Your task to perform on an android device: turn off translation in the chrome app Image 0: 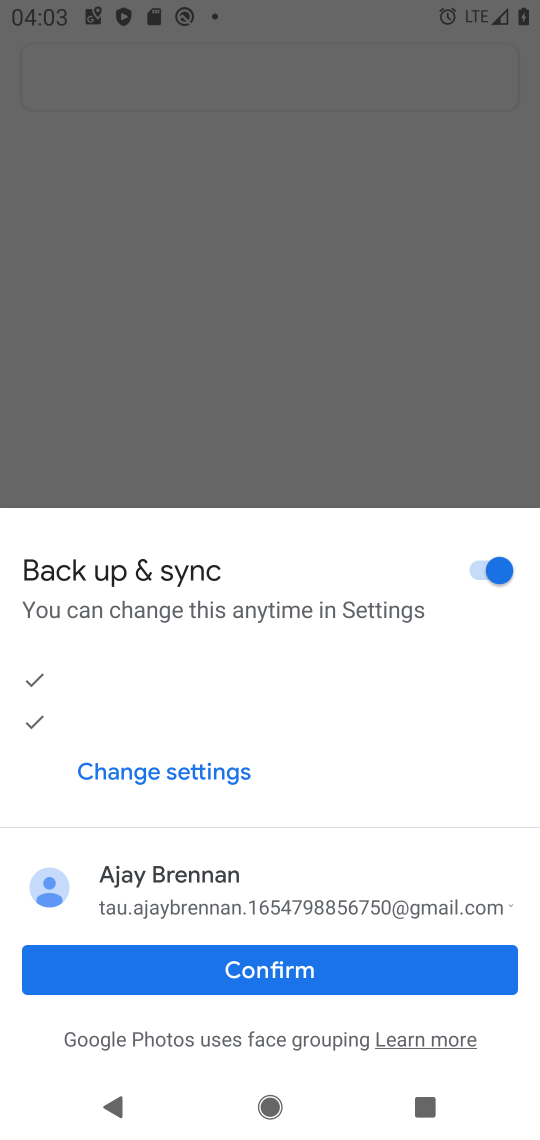
Step 0: press back button
Your task to perform on an android device: turn off translation in the chrome app Image 1: 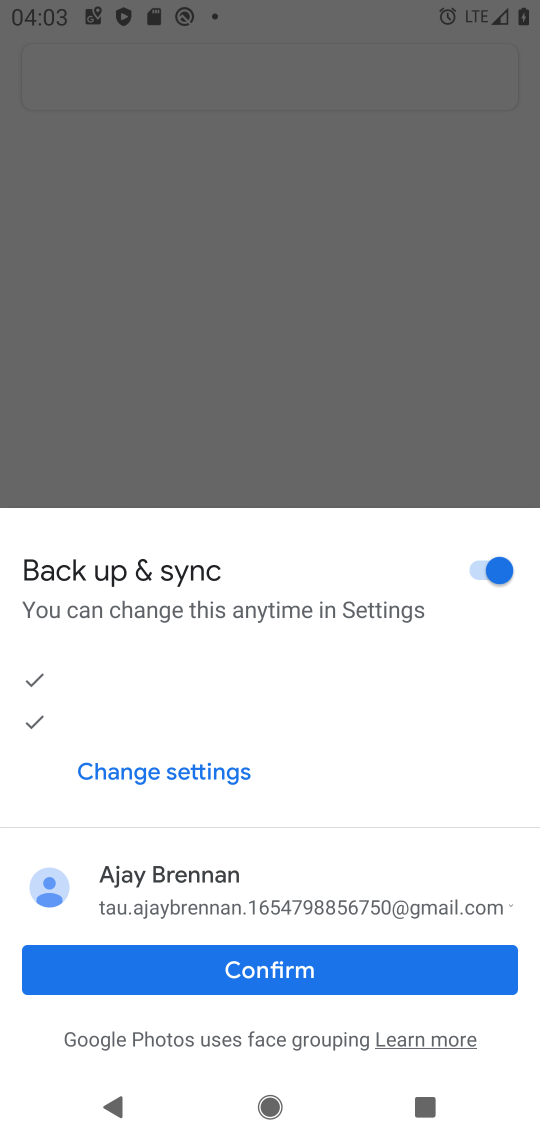
Step 1: click (359, 951)
Your task to perform on an android device: turn off translation in the chrome app Image 2: 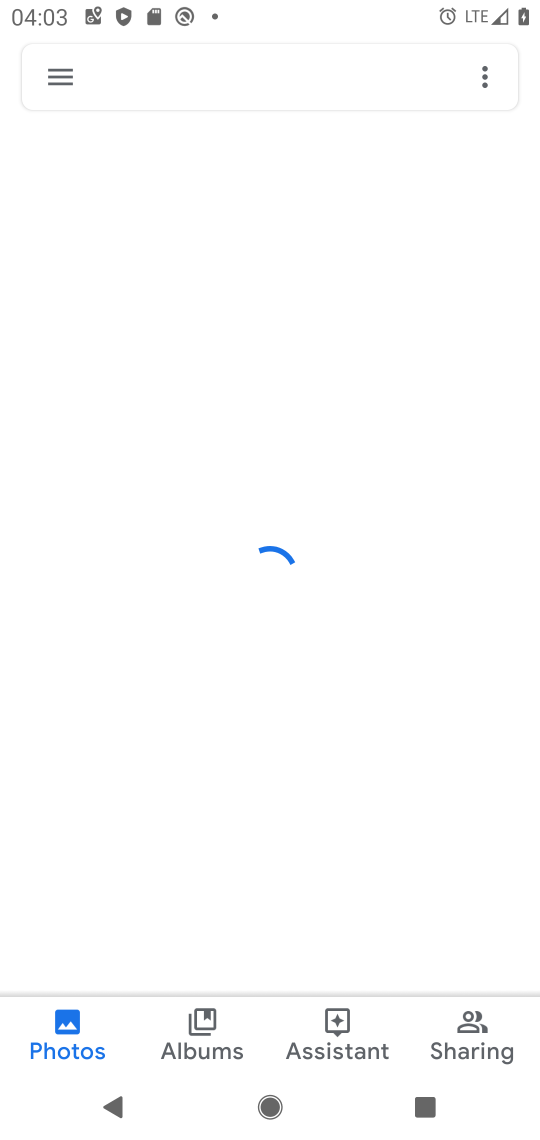
Step 2: press home button
Your task to perform on an android device: turn off translation in the chrome app Image 3: 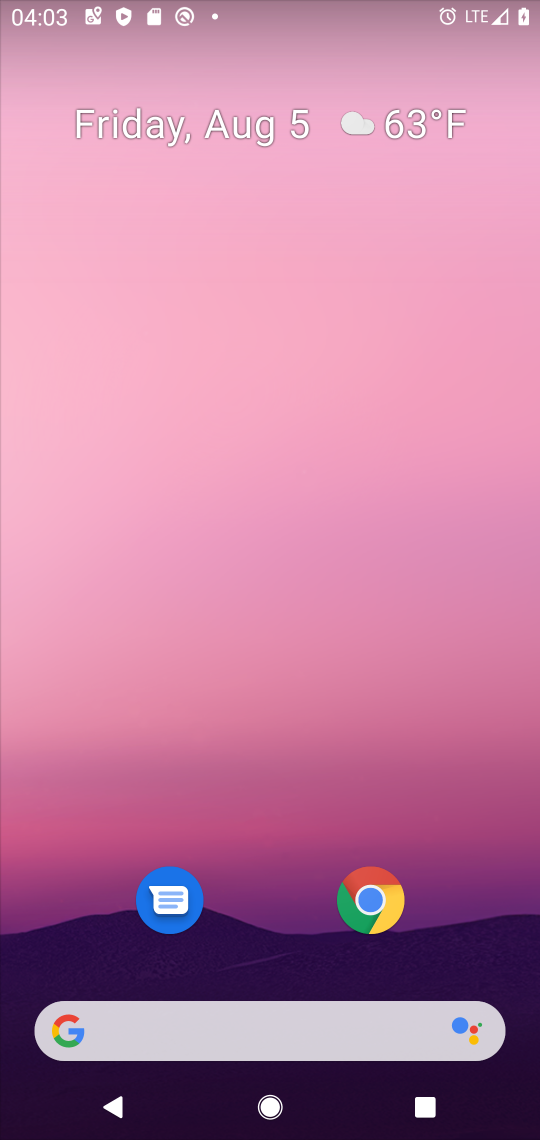
Step 3: press back button
Your task to perform on an android device: turn off translation in the chrome app Image 4: 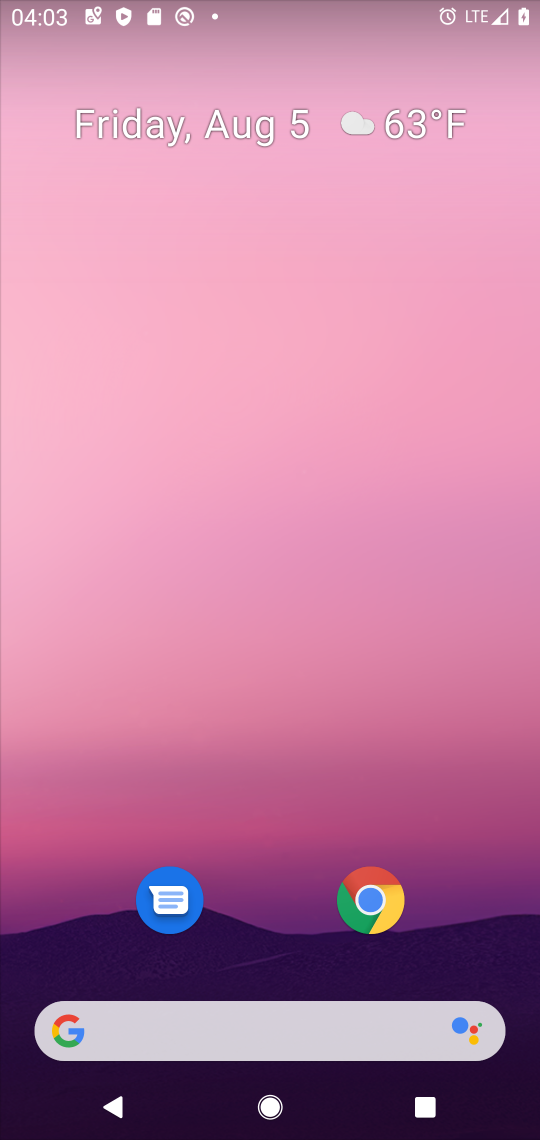
Step 4: click (381, 892)
Your task to perform on an android device: turn off translation in the chrome app Image 5: 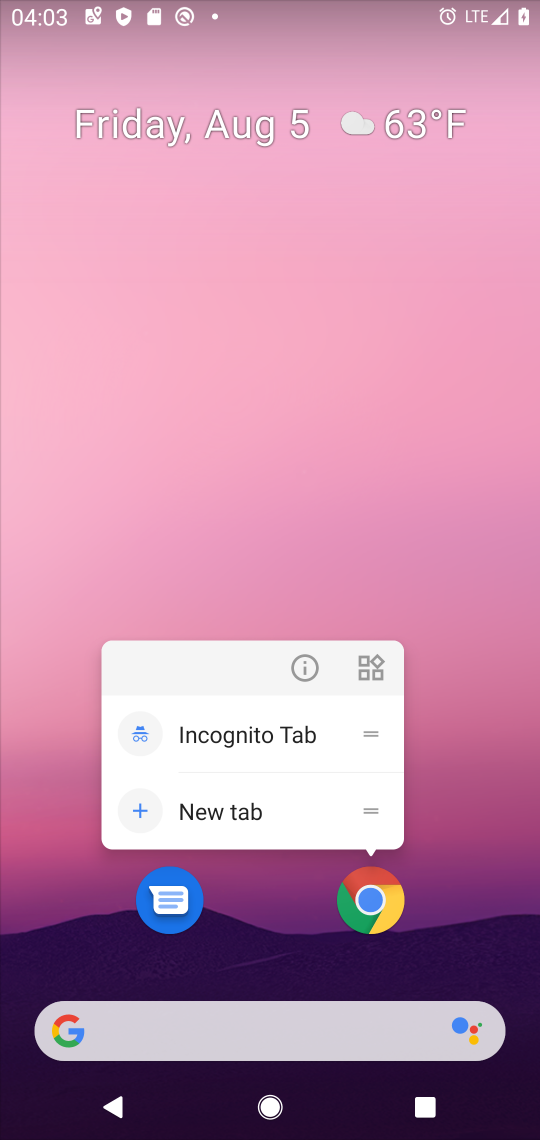
Step 5: click (389, 913)
Your task to perform on an android device: turn off translation in the chrome app Image 6: 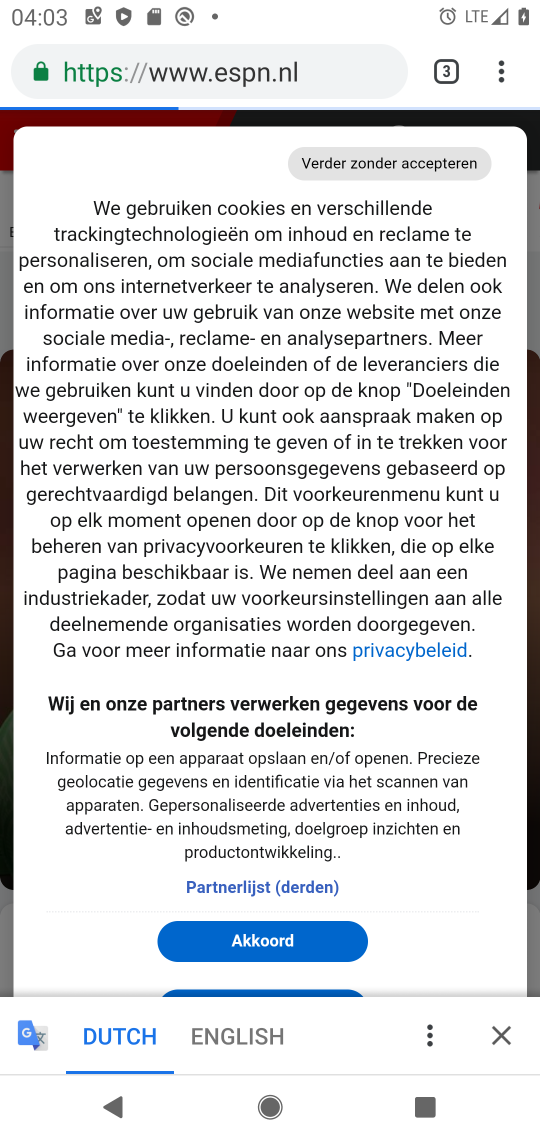
Step 6: drag from (499, 62) to (278, 796)
Your task to perform on an android device: turn off translation in the chrome app Image 7: 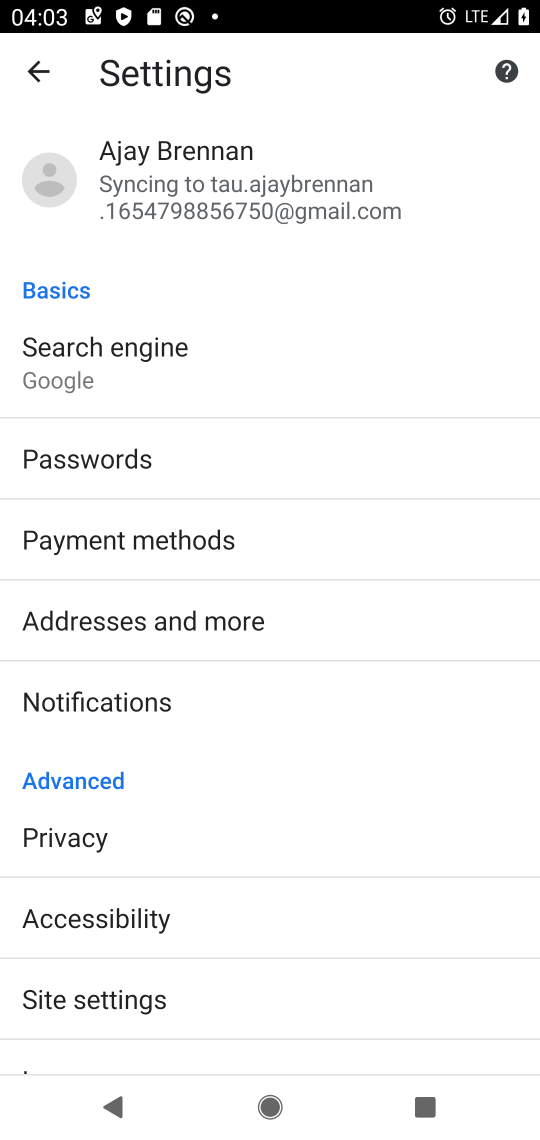
Step 7: drag from (118, 947) to (274, 277)
Your task to perform on an android device: turn off translation in the chrome app Image 8: 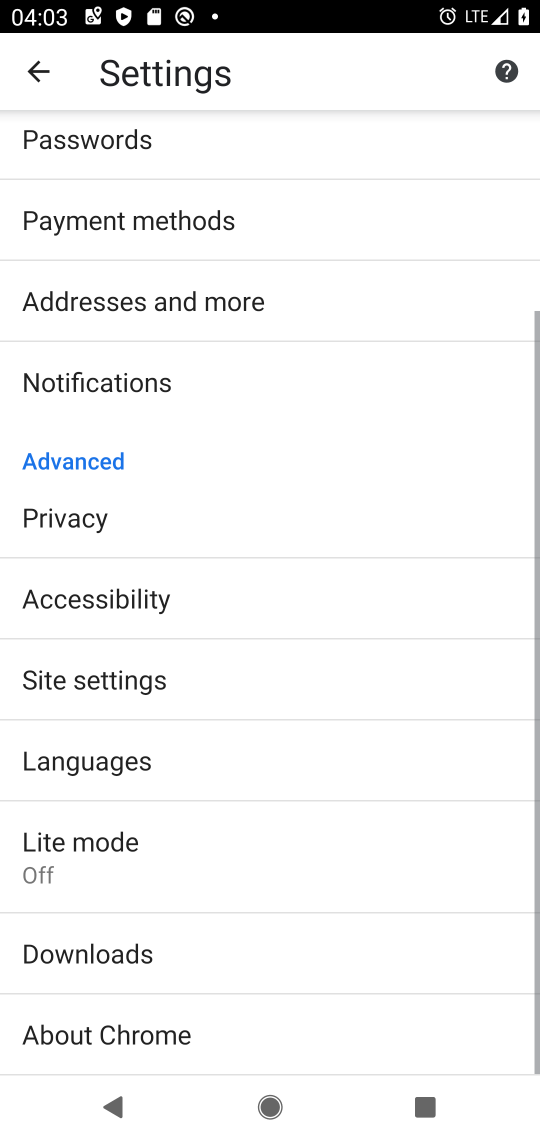
Step 8: click (183, 769)
Your task to perform on an android device: turn off translation in the chrome app Image 9: 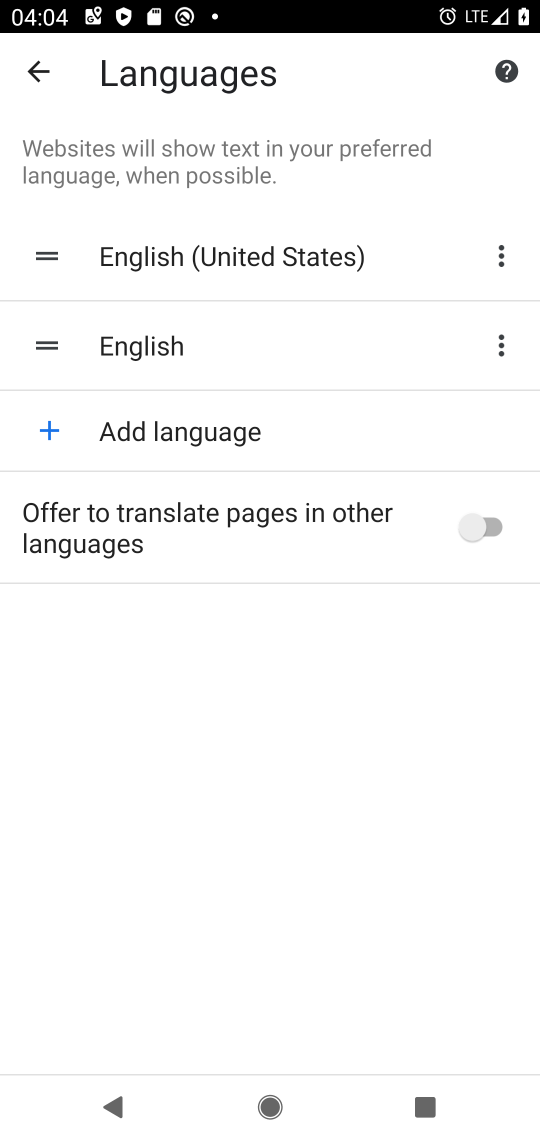
Step 9: task complete